Your task to perform on an android device: search for starred emails in the gmail app Image 0: 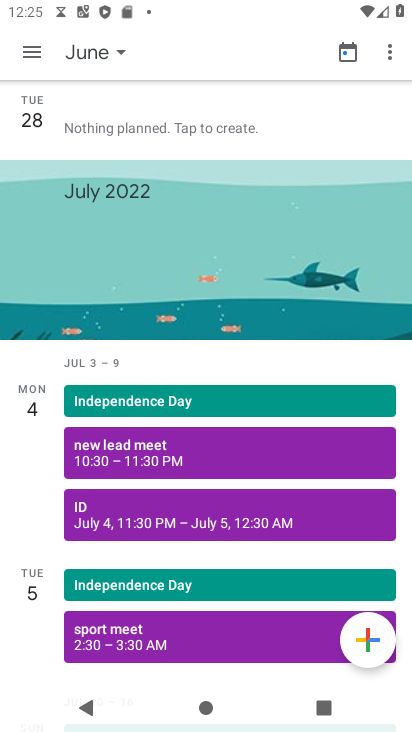
Step 0: press home button
Your task to perform on an android device: search for starred emails in the gmail app Image 1: 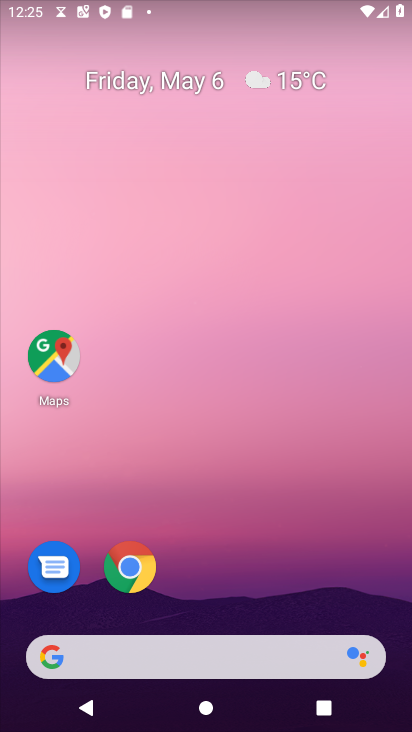
Step 1: drag from (329, 441) to (368, 39)
Your task to perform on an android device: search for starred emails in the gmail app Image 2: 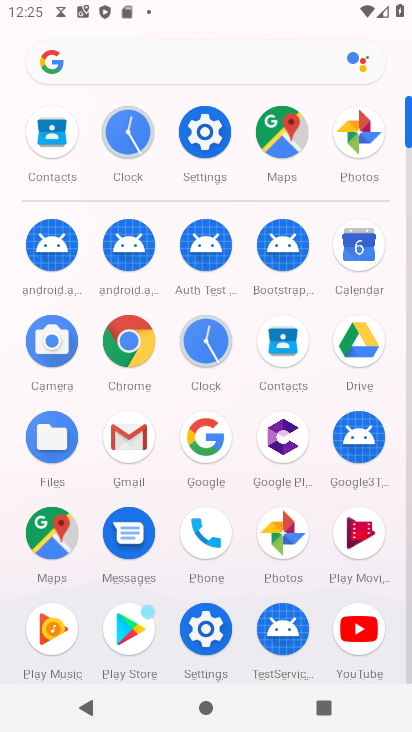
Step 2: click (123, 425)
Your task to perform on an android device: search for starred emails in the gmail app Image 3: 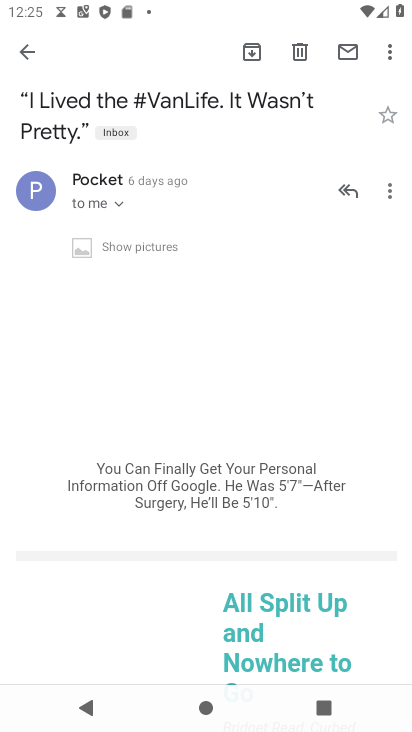
Step 3: click (22, 58)
Your task to perform on an android device: search for starred emails in the gmail app Image 4: 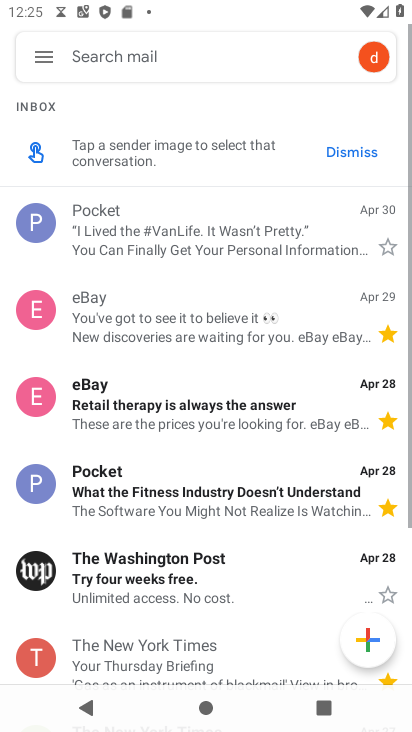
Step 4: click (50, 71)
Your task to perform on an android device: search for starred emails in the gmail app Image 5: 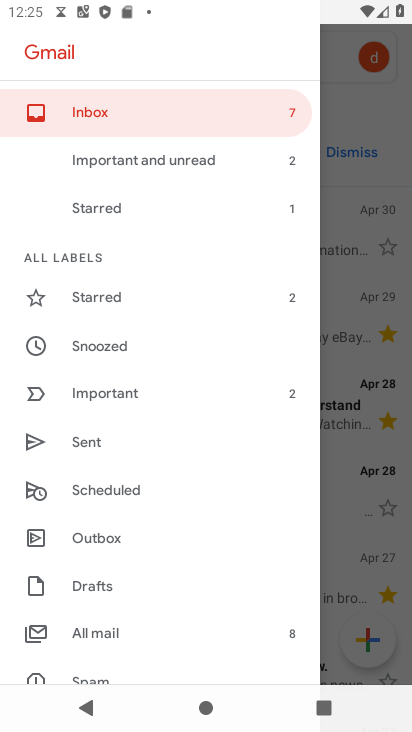
Step 5: click (120, 299)
Your task to perform on an android device: search for starred emails in the gmail app Image 6: 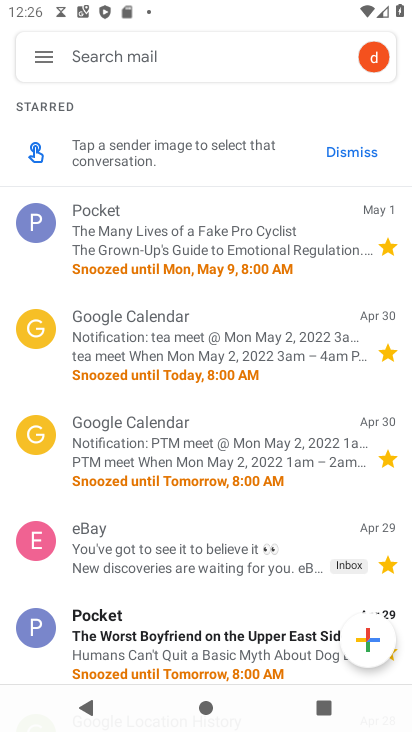
Step 6: task complete